Your task to perform on an android device: turn vacation reply on in the gmail app Image 0: 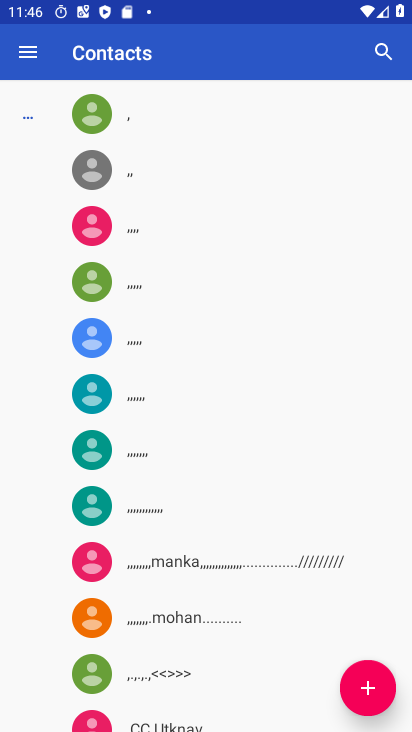
Step 0: press home button
Your task to perform on an android device: turn vacation reply on in the gmail app Image 1: 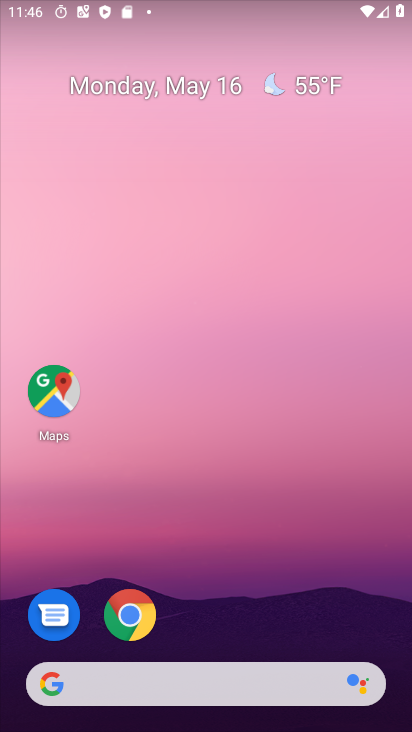
Step 1: drag from (250, 621) to (273, 74)
Your task to perform on an android device: turn vacation reply on in the gmail app Image 2: 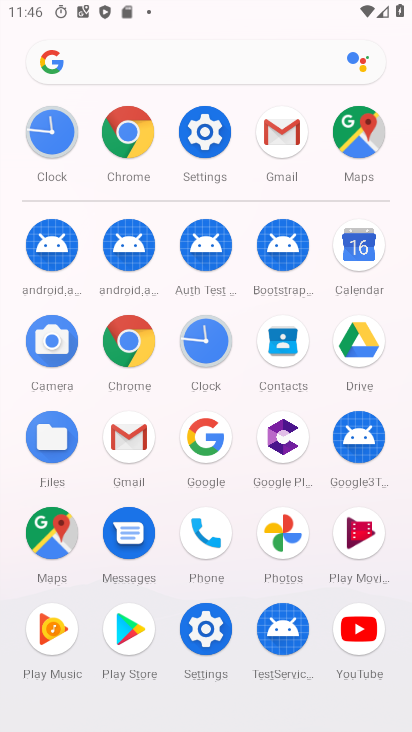
Step 2: click (130, 443)
Your task to perform on an android device: turn vacation reply on in the gmail app Image 3: 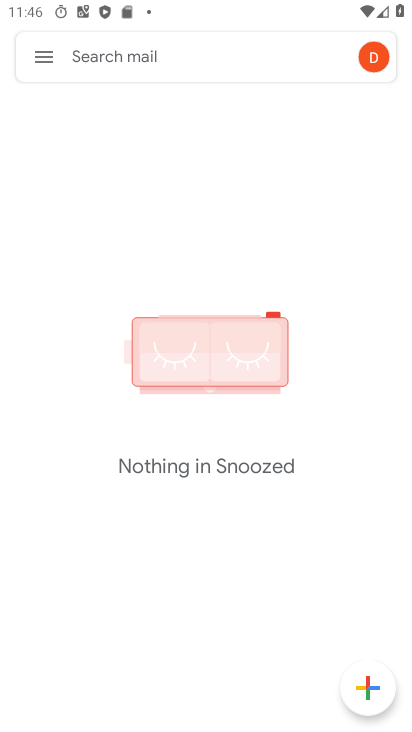
Step 3: click (40, 55)
Your task to perform on an android device: turn vacation reply on in the gmail app Image 4: 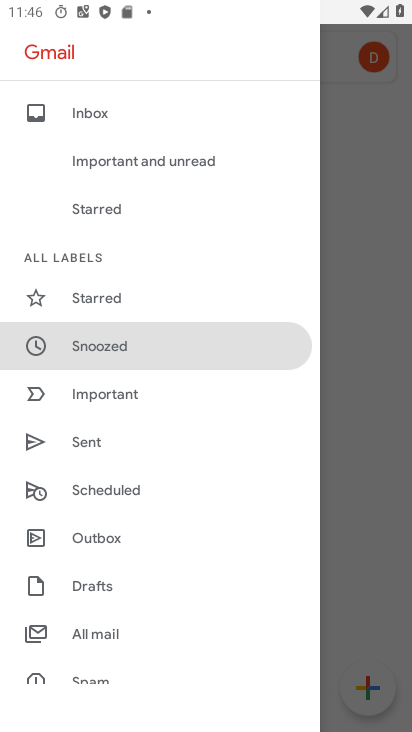
Step 4: drag from (183, 564) to (231, 255)
Your task to perform on an android device: turn vacation reply on in the gmail app Image 5: 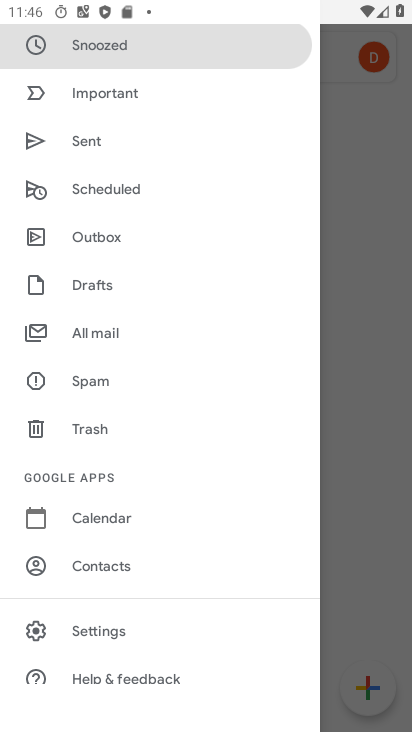
Step 5: click (99, 623)
Your task to perform on an android device: turn vacation reply on in the gmail app Image 6: 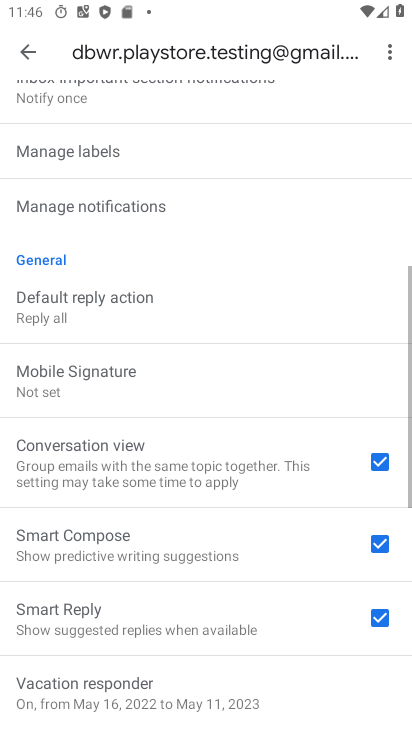
Step 6: drag from (241, 611) to (273, 231)
Your task to perform on an android device: turn vacation reply on in the gmail app Image 7: 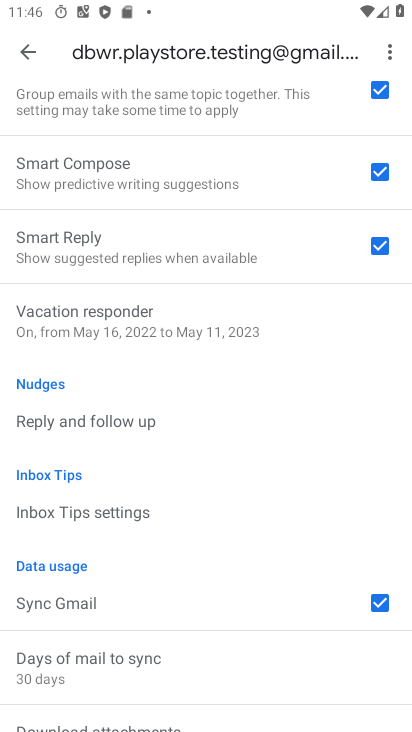
Step 7: click (134, 325)
Your task to perform on an android device: turn vacation reply on in the gmail app Image 8: 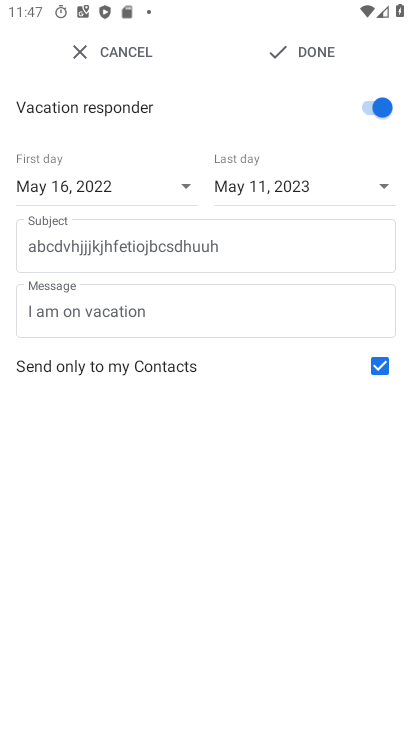
Step 8: click (312, 49)
Your task to perform on an android device: turn vacation reply on in the gmail app Image 9: 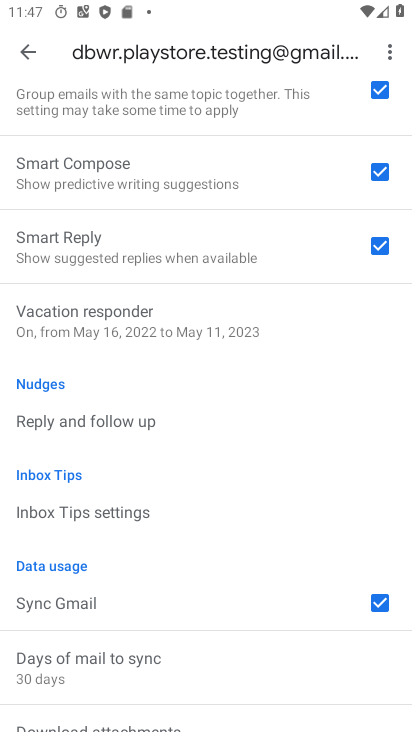
Step 9: task complete